Your task to perform on an android device: Open the phone app and click the voicemail tab. Image 0: 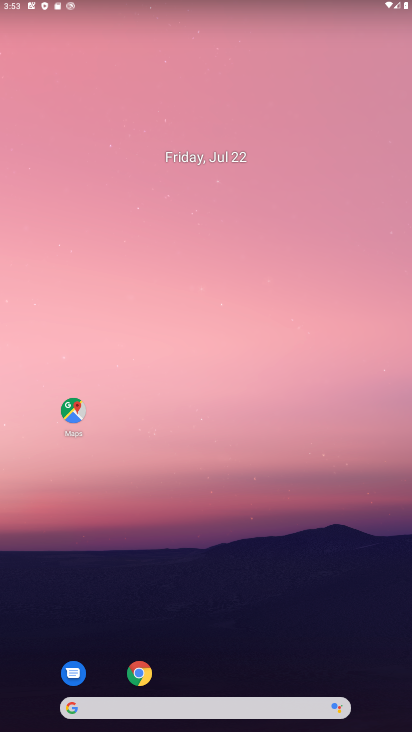
Step 0: click (254, 47)
Your task to perform on an android device: Open the phone app and click the voicemail tab. Image 1: 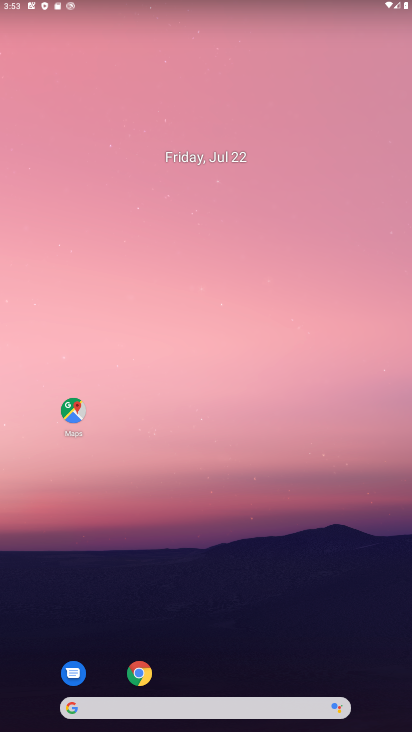
Step 1: drag from (204, 677) to (196, 28)
Your task to perform on an android device: Open the phone app and click the voicemail tab. Image 2: 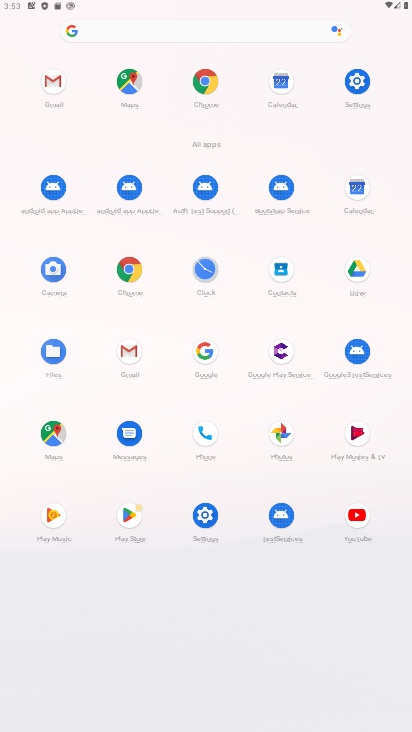
Step 2: click (203, 426)
Your task to perform on an android device: Open the phone app and click the voicemail tab. Image 3: 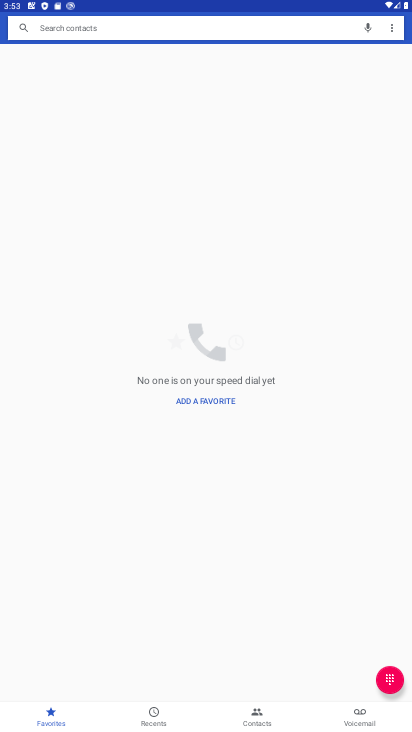
Step 3: click (357, 706)
Your task to perform on an android device: Open the phone app and click the voicemail tab. Image 4: 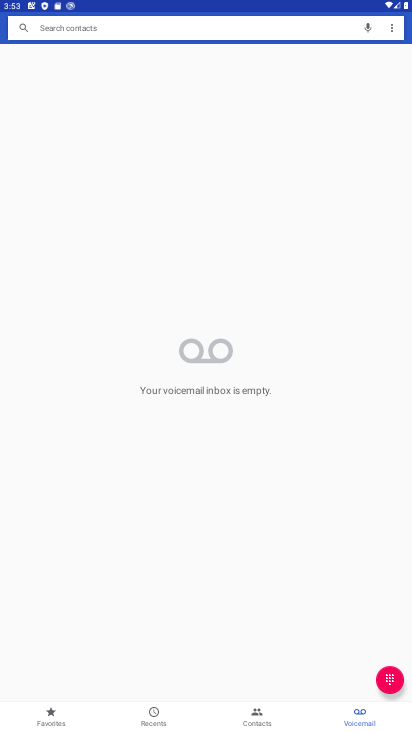
Step 4: task complete